Your task to perform on an android device: toggle pop-ups in chrome Image 0: 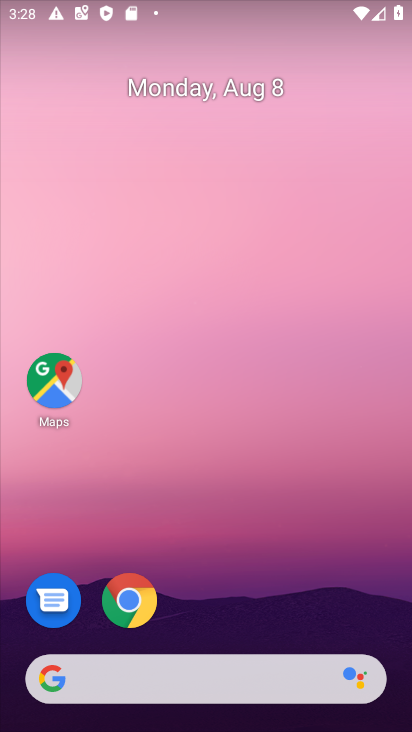
Step 0: click (136, 603)
Your task to perform on an android device: toggle pop-ups in chrome Image 1: 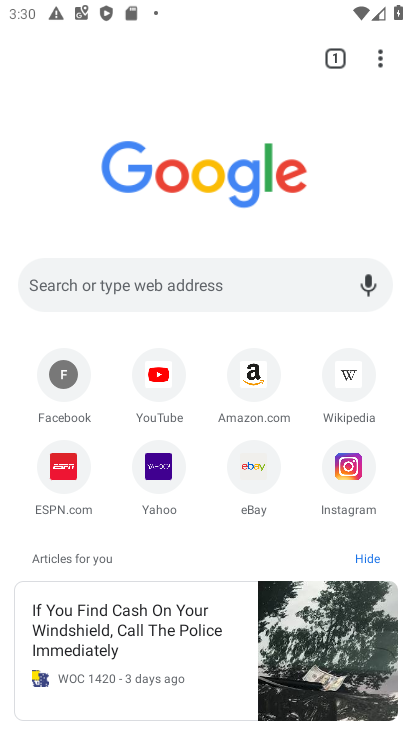
Step 1: click (380, 52)
Your task to perform on an android device: toggle pop-ups in chrome Image 2: 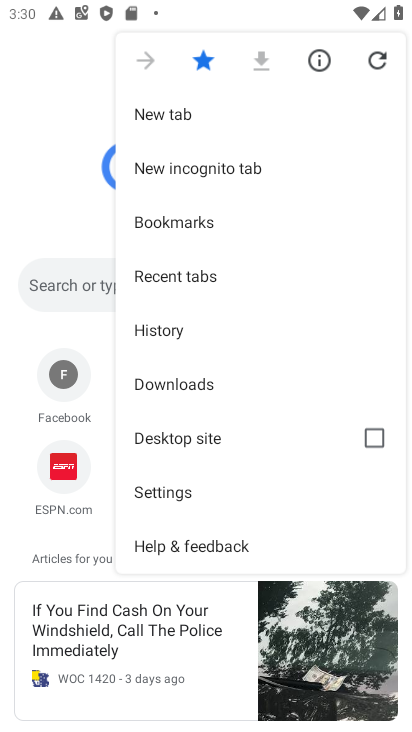
Step 2: click (157, 494)
Your task to perform on an android device: toggle pop-ups in chrome Image 3: 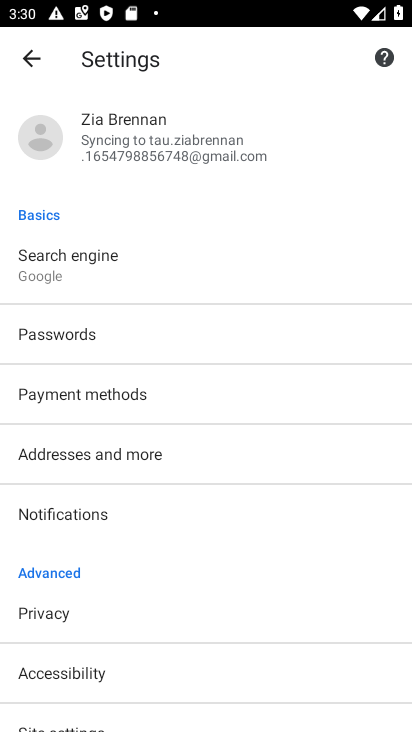
Step 3: drag from (217, 599) to (241, 395)
Your task to perform on an android device: toggle pop-ups in chrome Image 4: 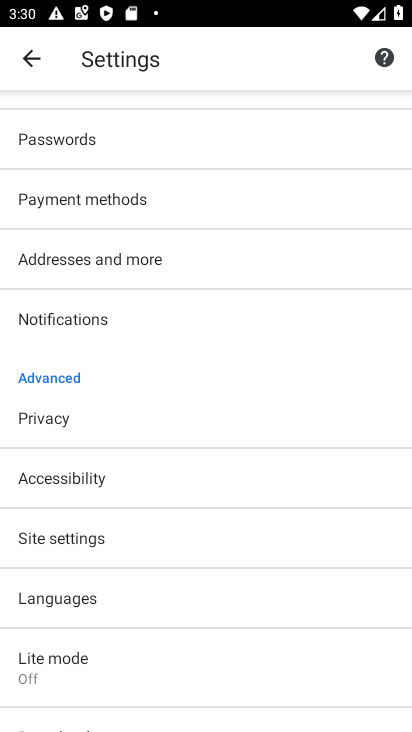
Step 4: click (45, 542)
Your task to perform on an android device: toggle pop-ups in chrome Image 5: 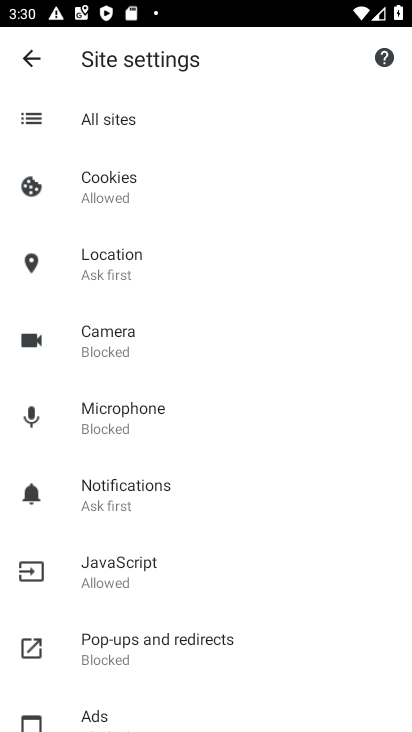
Step 5: click (111, 633)
Your task to perform on an android device: toggle pop-ups in chrome Image 6: 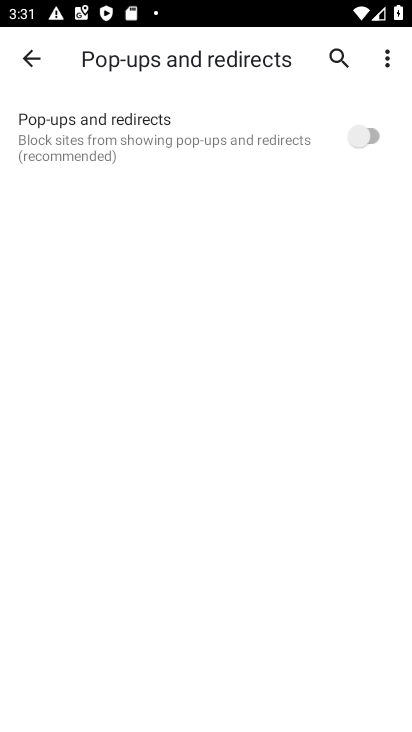
Step 6: click (379, 131)
Your task to perform on an android device: toggle pop-ups in chrome Image 7: 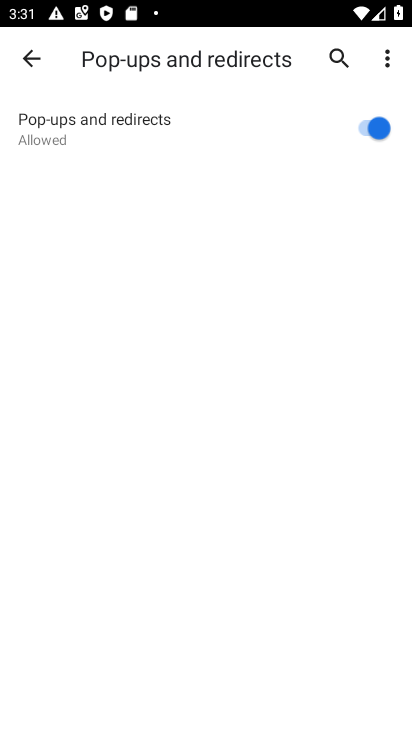
Step 7: task complete